Your task to perform on an android device: set an alarm Image 0: 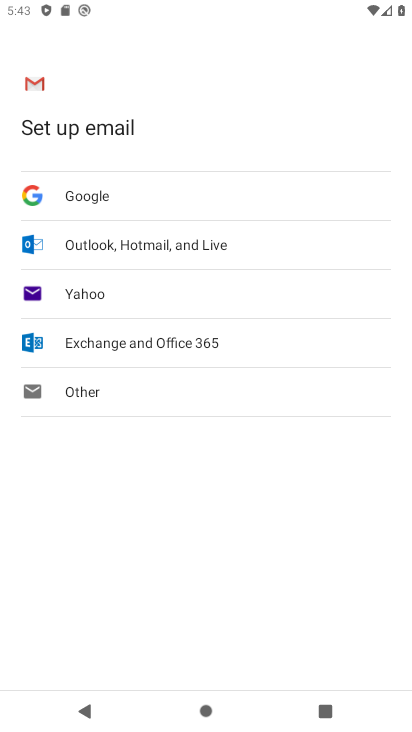
Step 0: press home button
Your task to perform on an android device: set an alarm Image 1: 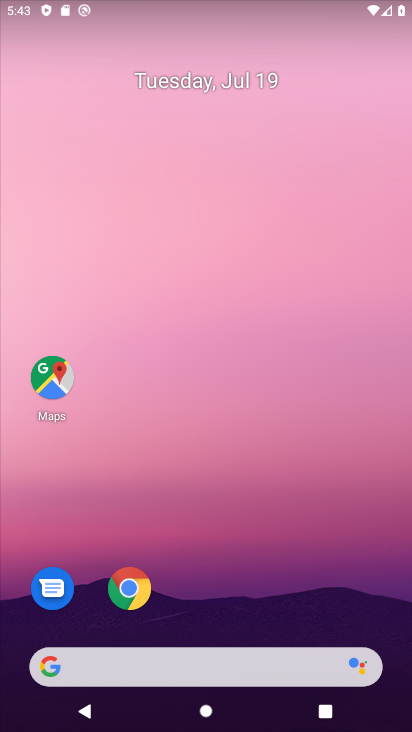
Step 1: drag from (158, 624) to (186, 15)
Your task to perform on an android device: set an alarm Image 2: 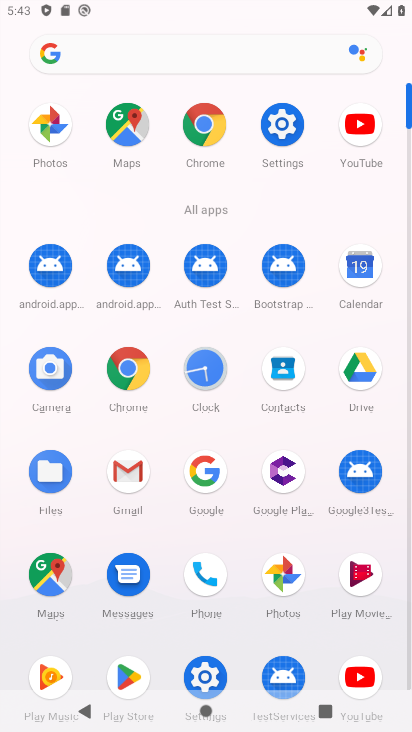
Step 2: click (206, 372)
Your task to perform on an android device: set an alarm Image 3: 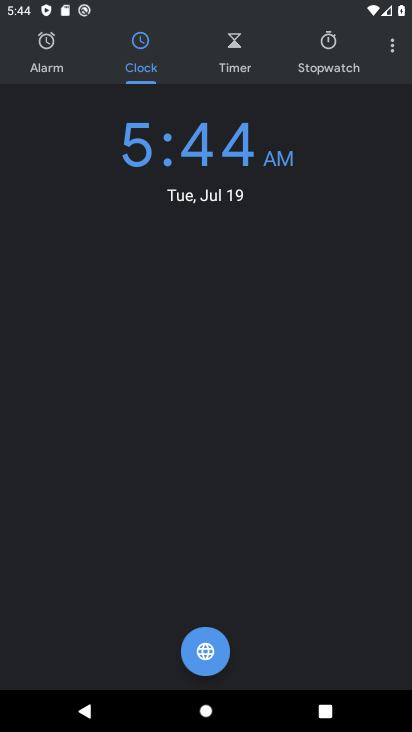
Step 3: click (47, 68)
Your task to perform on an android device: set an alarm Image 4: 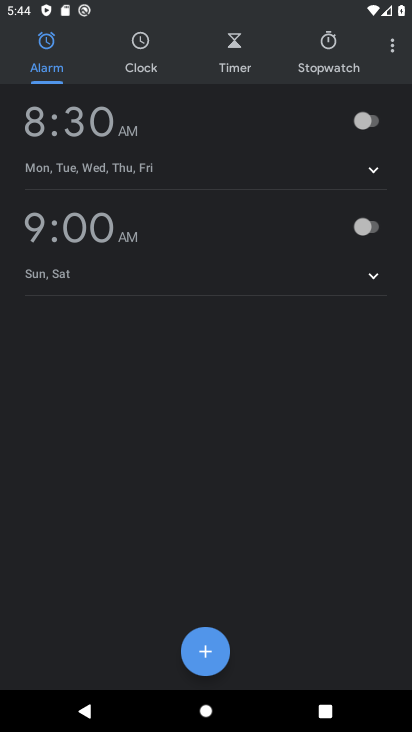
Step 4: click (369, 136)
Your task to perform on an android device: set an alarm Image 5: 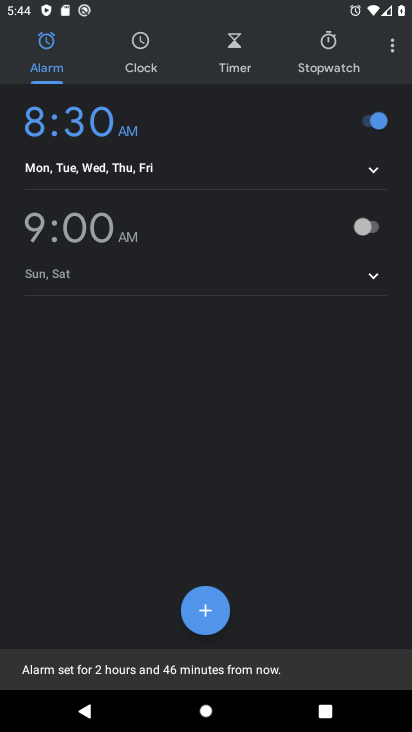
Step 5: task complete